Your task to perform on an android device: Open the web browser Image 0: 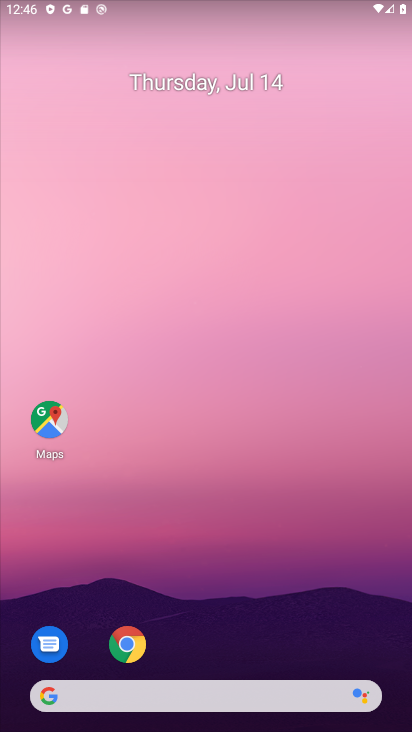
Step 0: drag from (196, 674) to (352, 187)
Your task to perform on an android device: Open the web browser Image 1: 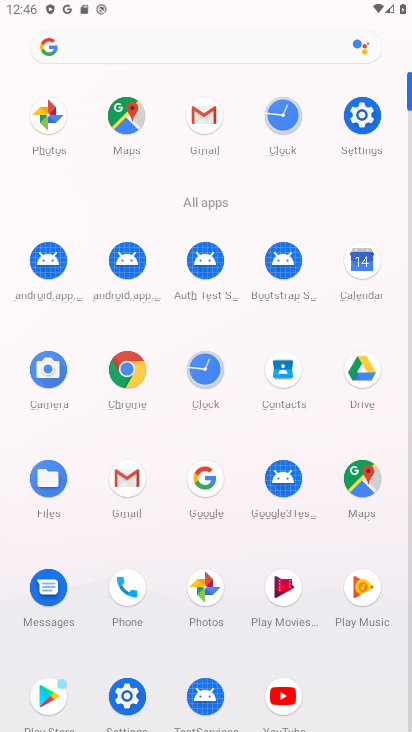
Step 1: click (201, 480)
Your task to perform on an android device: Open the web browser Image 2: 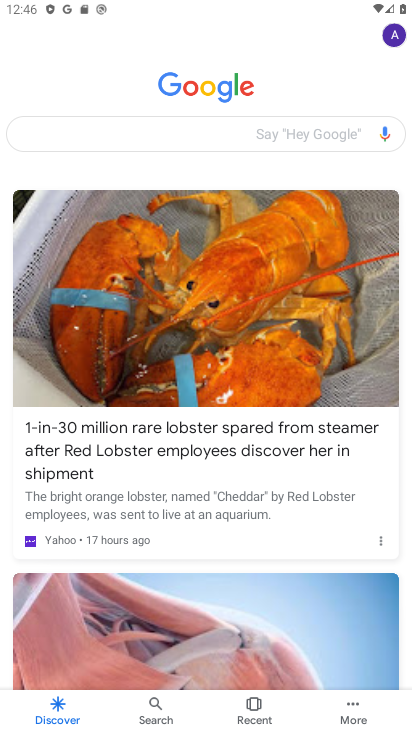
Step 2: task complete